Your task to perform on an android device: Open Yahoo.com Image 0: 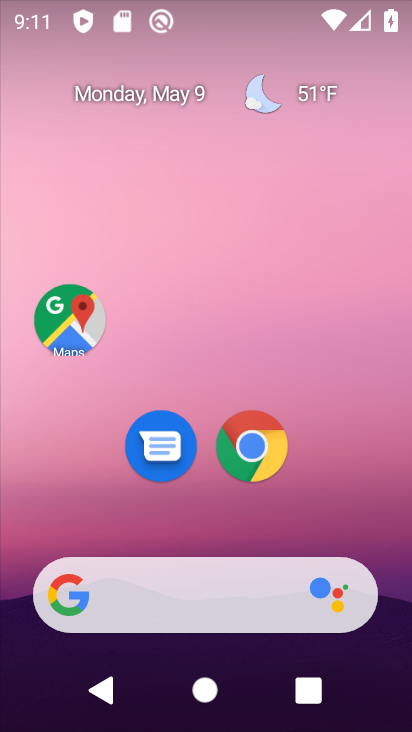
Step 0: drag from (321, 526) to (282, 340)
Your task to perform on an android device: Open Yahoo.com Image 1: 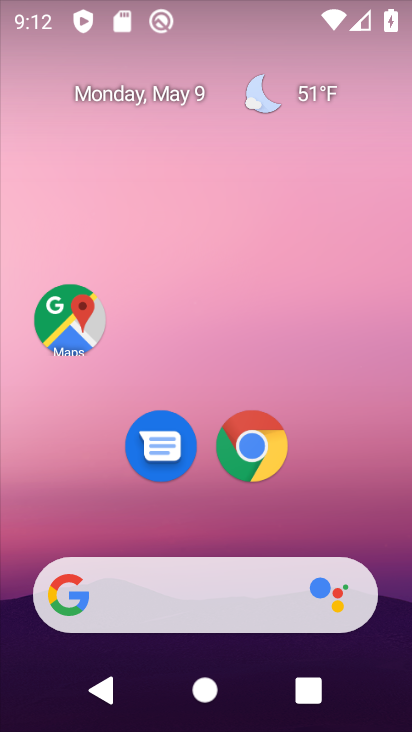
Step 1: click (251, 428)
Your task to perform on an android device: Open Yahoo.com Image 2: 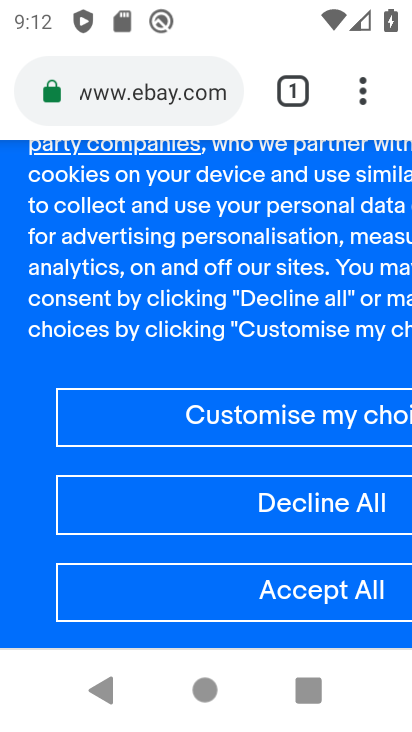
Step 2: click (191, 87)
Your task to perform on an android device: Open Yahoo.com Image 3: 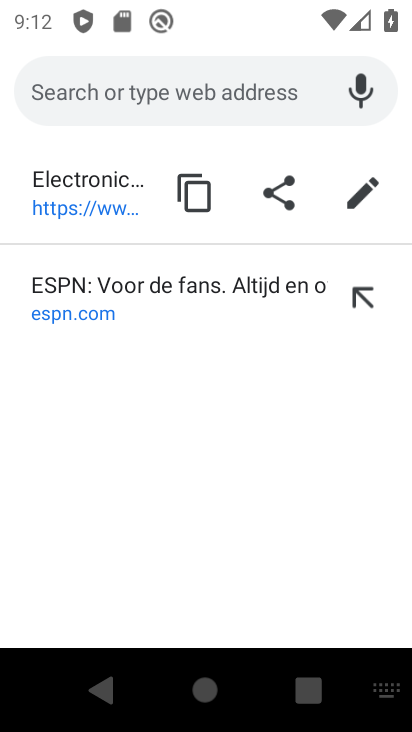
Step 3: type "yahoo.com"
Your task to perform on an android device: Open Yahoo.com Image 4: 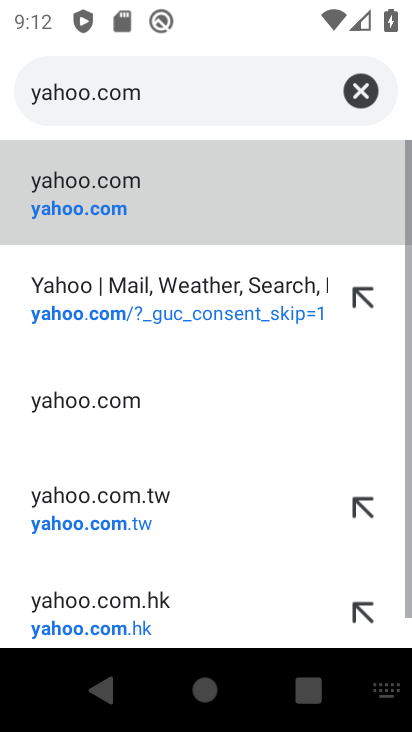
Step 4: click (225, 184)
Your task to perform on an android device: Open Yahoo.com Image 5: 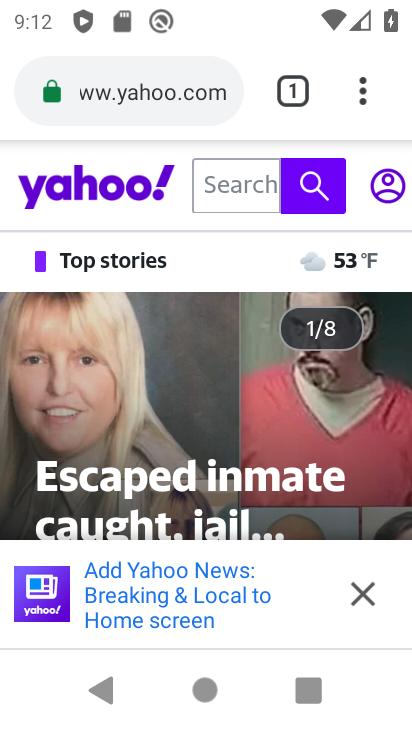
Step 5: task complete